Your task to perform on an android device: change timer sound Image 0: 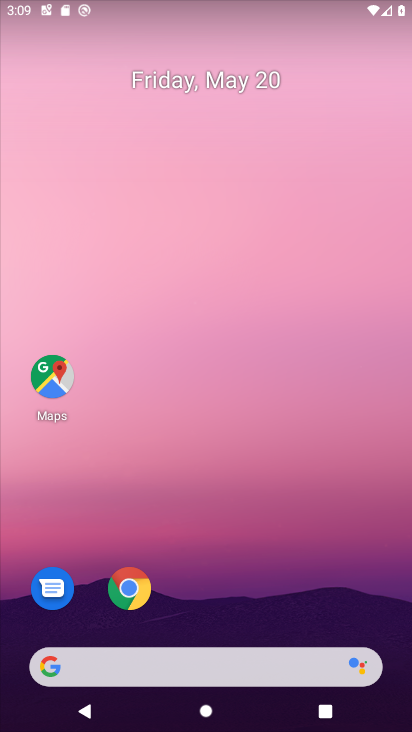
Step 0: drag from (352, 466) to (382, 110)
Your task to perform on an android device: change timer sound Image 1: 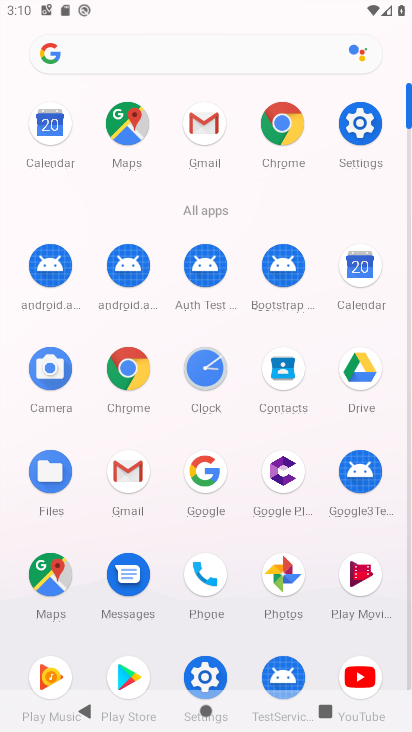
Step 1: click (201, 371)
Your task to perform on an android device: change timer sound Image 2: 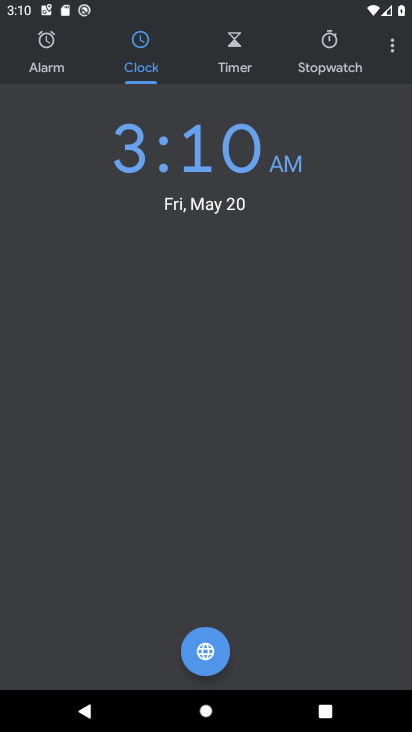
Step 2: click (396, 42)
Your task to perform on an android device: change timer sound Image 3: 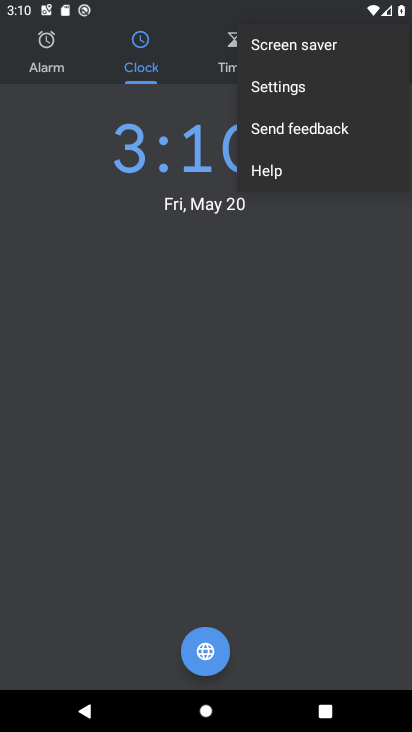
Step 3: click (296, 96)
Your task to perform on an android device: change timer sound Image 4: 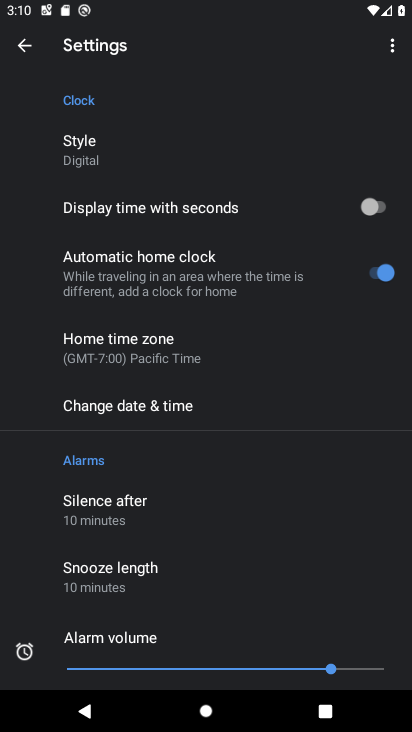
Step 4: drag from (173, 513) to (289, 197)
Your task to perform on an android device: change timer sound Image 5: 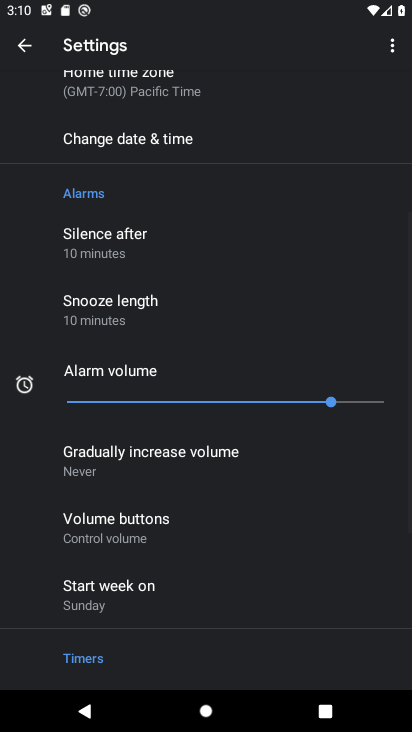
Step 5: drag from (227, 481) to (329, 227)
Your task to perform on an android device: change timer sound Image 6: 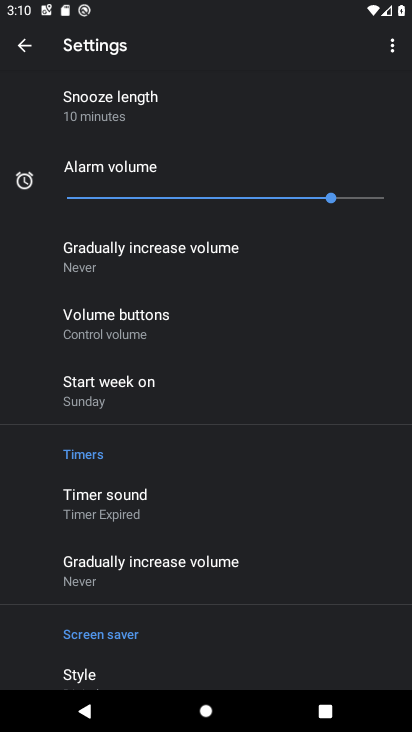
Step 6: click (111, 495)
Your task to perform on an android device: change timer sound Image 7: 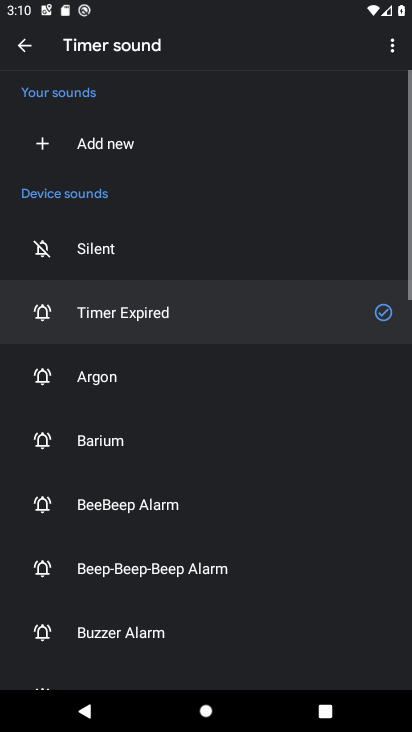
Step 7: click (141, 360)
Your task to perform on an android device: change timer sound Image 8: 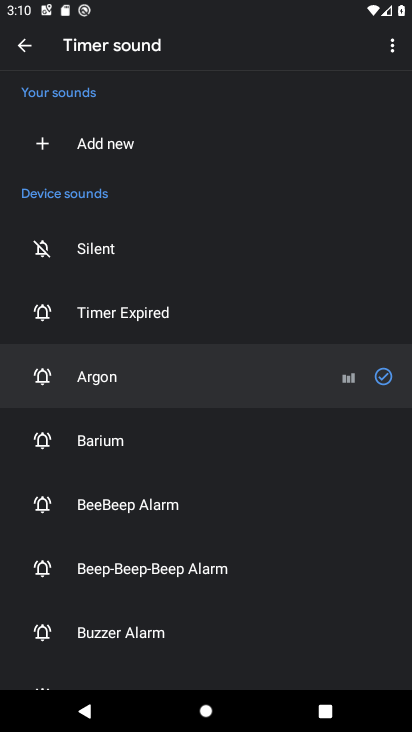
Step 8: task complete